Your task to perform on an android device: make emails show in primary in the gmail app Image 0: 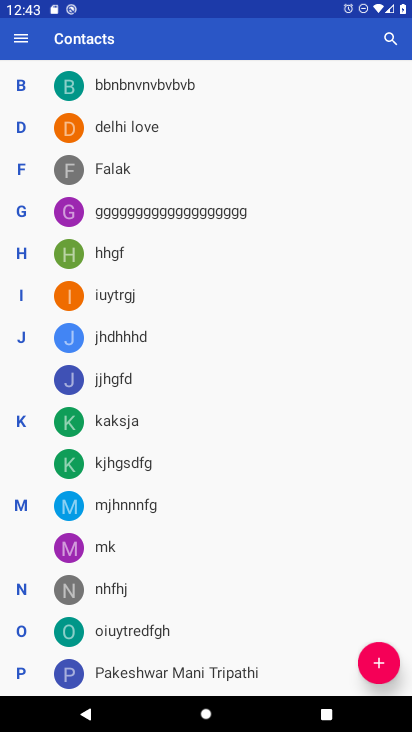
Step 0: press home button
Your task to perform on an android device: make emails show in primary in the gmail app Image 1: 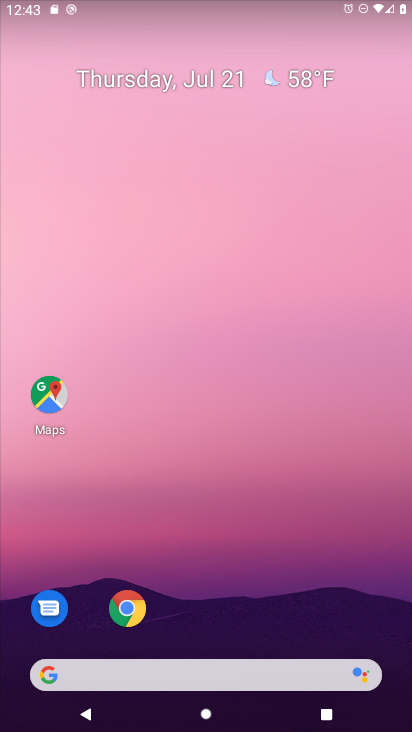
Step 1: drag from (246, 629) to (227, 143)
Your task to perform on an android device: make emails show in primary in the gmail app Image 2: 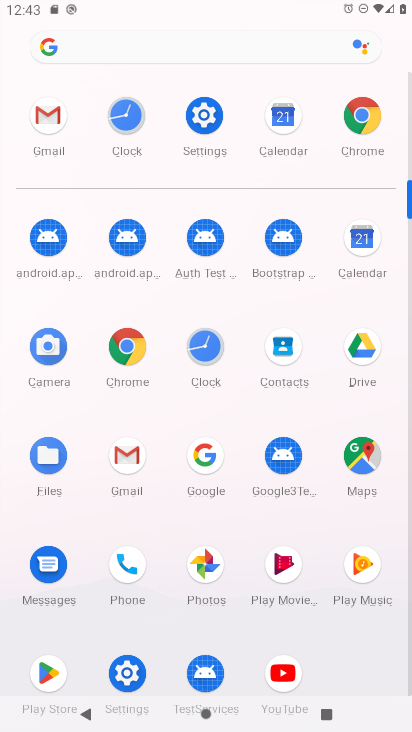
Step 2: click (48, 125)
Your task to perform on an android device: make emails show in primary in the gmail app Image 3: 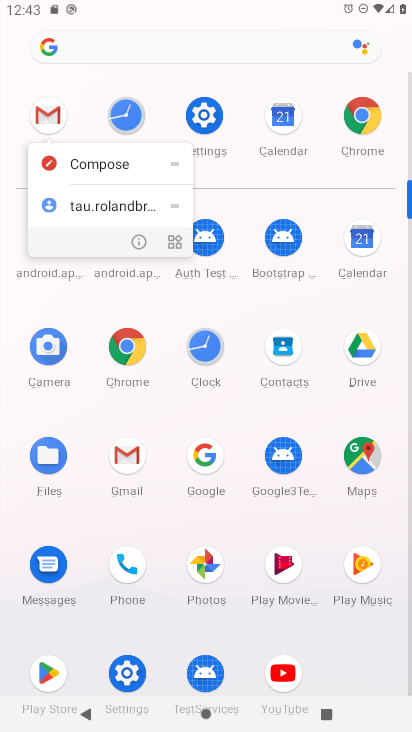
Step 3: click (57, 116)
Your task to perform on an android device: make emails show in primary in the gmail app Image 4: 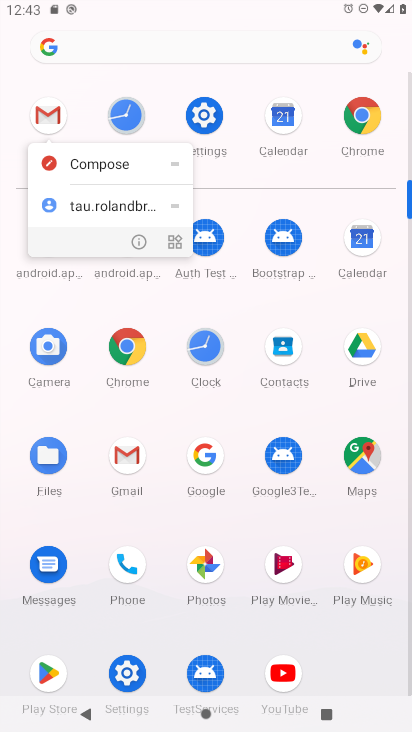
Step 4: click (45, 113)
Your task to perform on an android device: make emails show in primary in the gmail app Image 5: 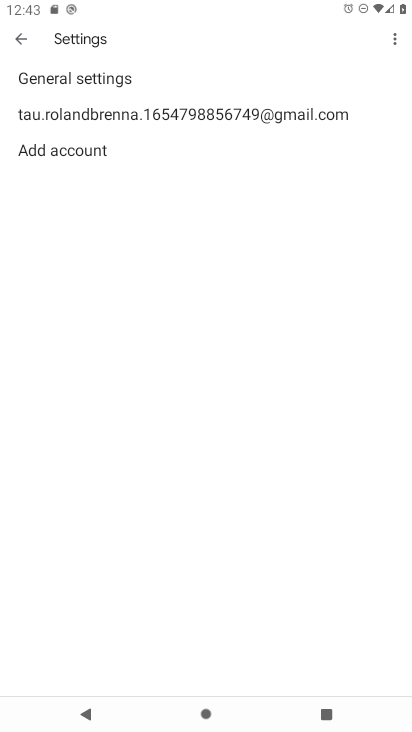
Step 5: click (106, 117)
Your task to perform on an android device: make emails show in primary in the gmail app Image 6: 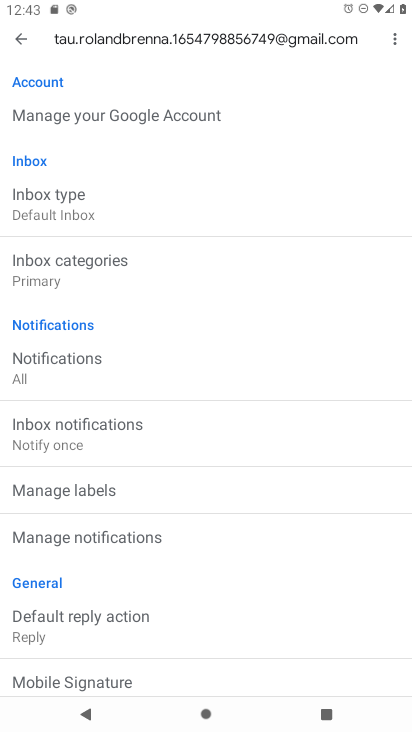
Step 6: click (56, 266)
Your task to perform on an android device: make emails show in primary in the gmail app Image 7: 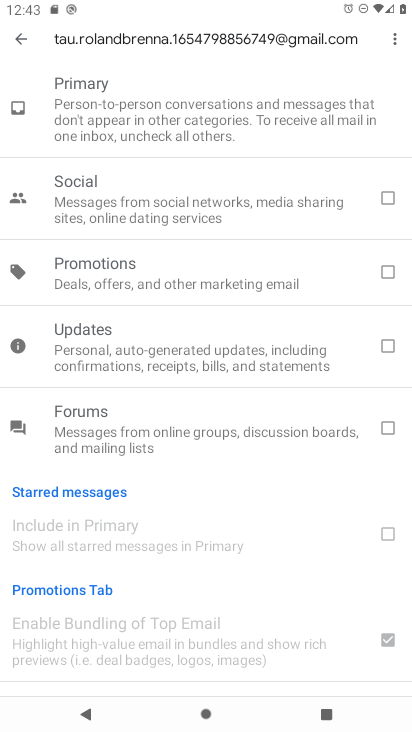
Step 7: task complete